Your task to perform on an android device: Turn on the flashlight Image 0: 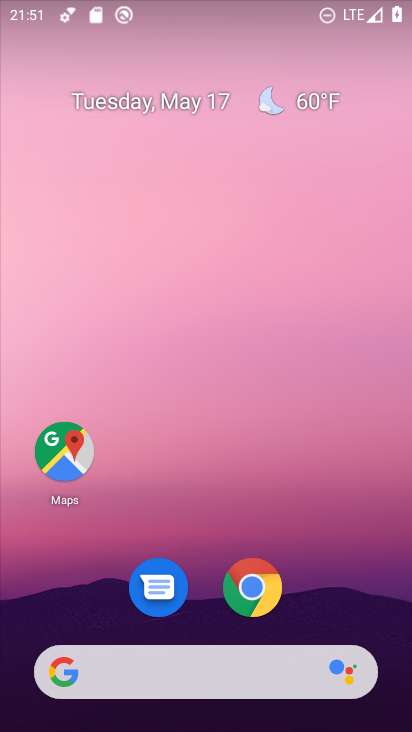
Step 0: drag from (213, 515) to (193, 166)
Your task to perform on an android device: Turn on the flashlight Image 1: 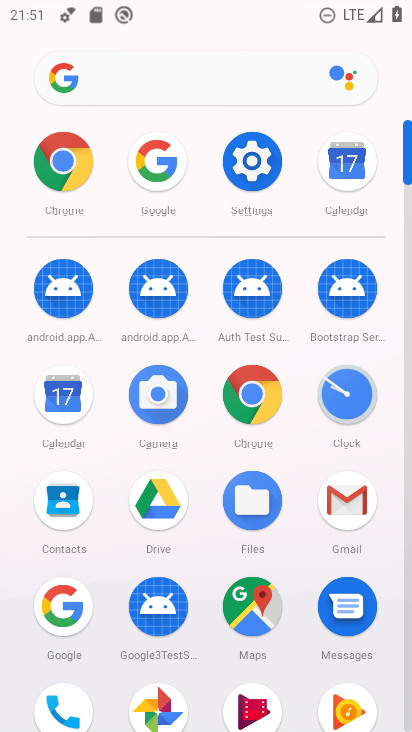
Step 1: click (243, 170)
Your task to perform on an android device: Turn on the flashlight Image 2: 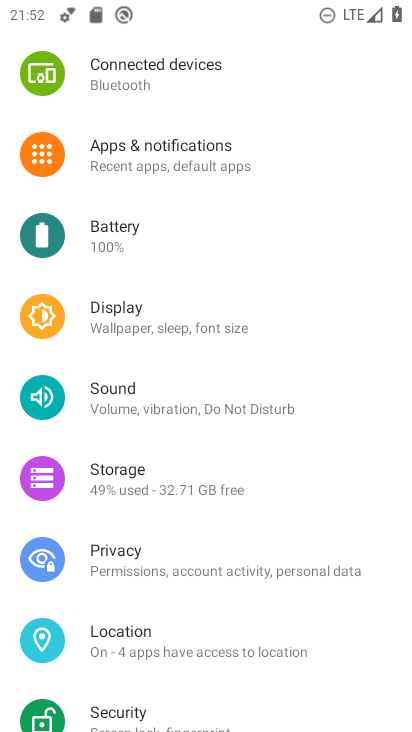
Step 2: task complete